Your task to perform on an android device: change timer sound Image 0: 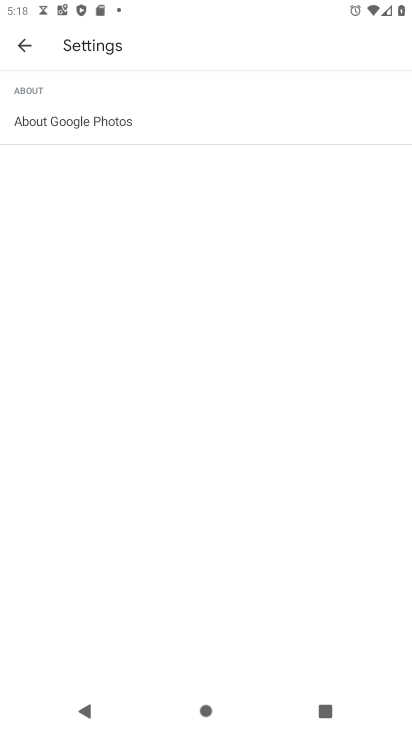
Step 0: press back button
Your task to perform on an android device: change timer sound Image 1: 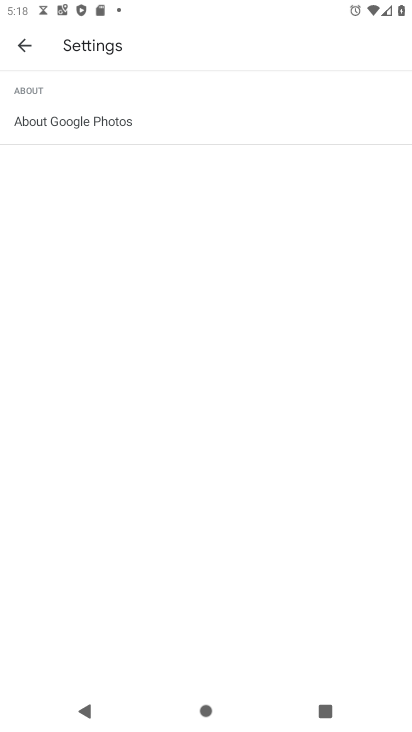
Step 1: press home button
Your task to perform on an android device: change timer sound Image 2: 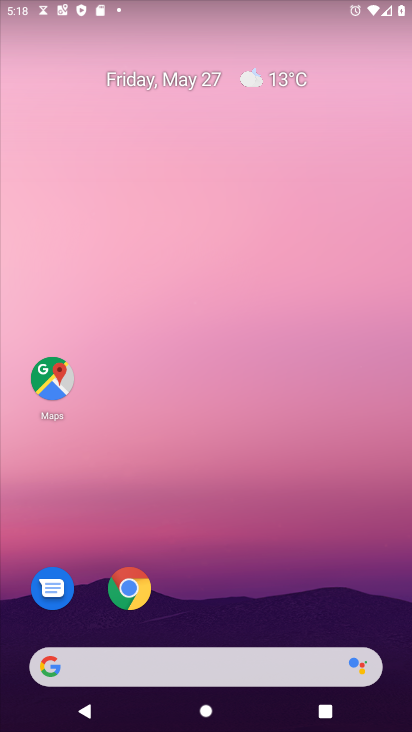
Step 2: drag from (210, 581) to (294, 39)
Your task to perform on an android device: change timer sound Image 3: 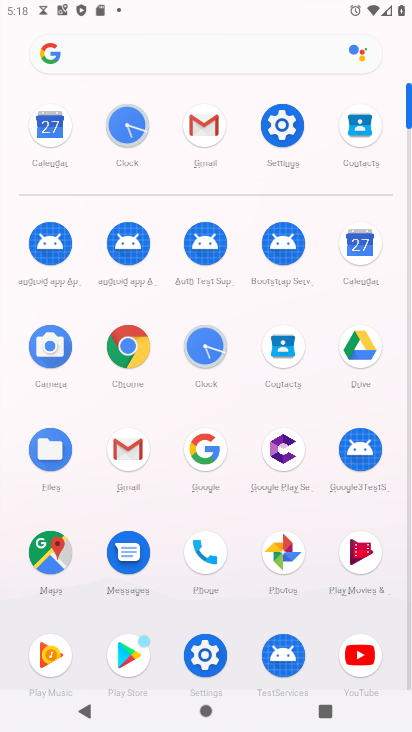
Step 3: click (214, 334)
Your task to perform on an android device: change timer sound Image 4: 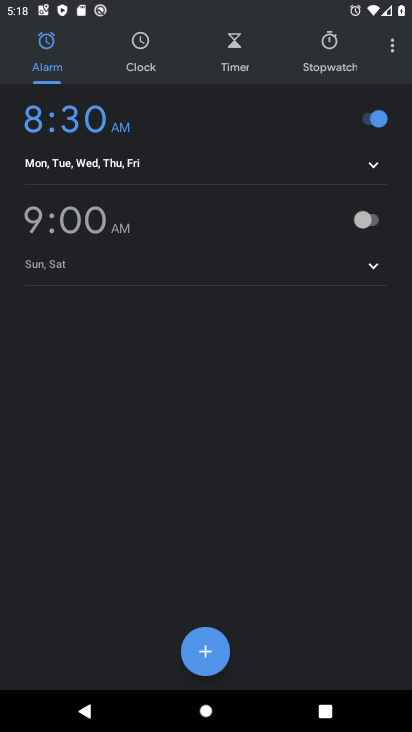
Step 4: click (393, 41)
Your task to perform on an android device: change timer sound Image 5: 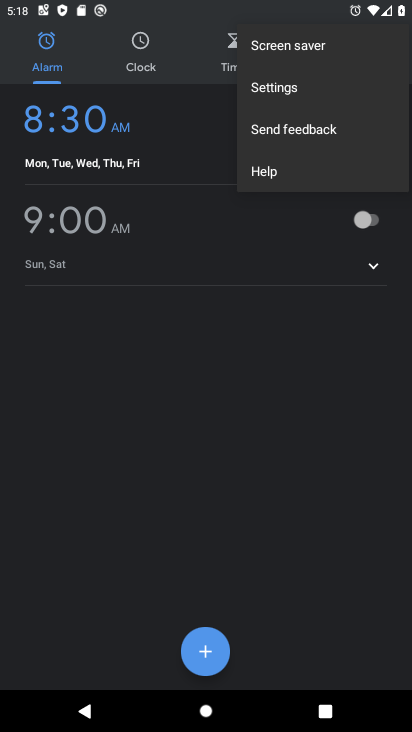
Step 5: click (308, 82)
Your task to perform on an android device: change timer sound Image 6: 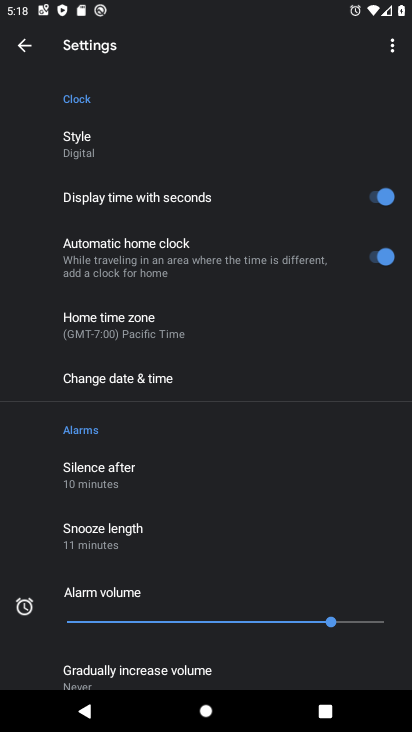
Step 6: drag from (191, 584) to (243, 164)
Your task to perform on an android device: change timer sound Image 7: 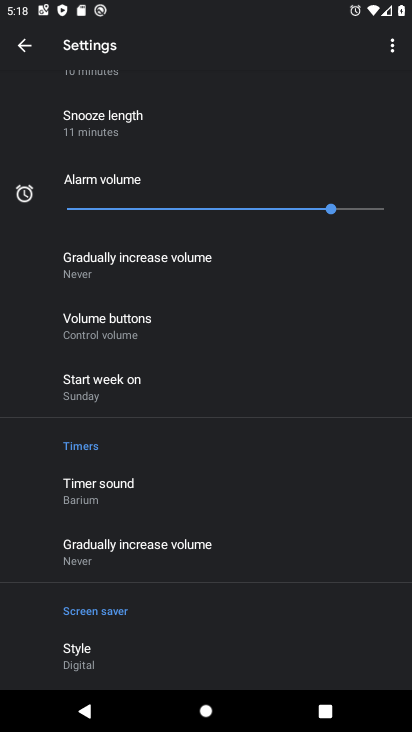
Step 7: click (97, 496)
Your task to perform on an android device: change timer sound Image 8: 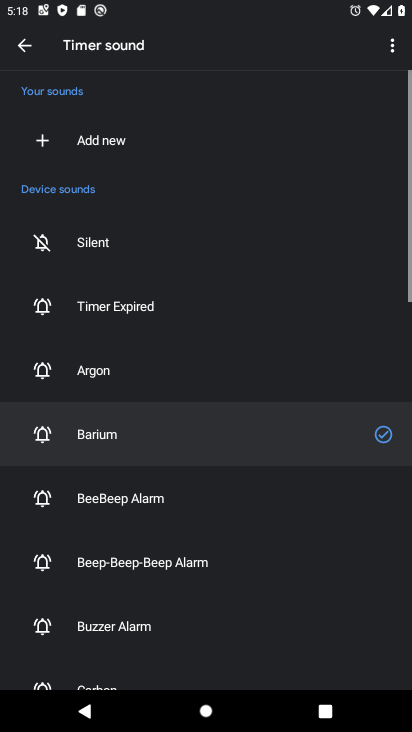
Step 8: click (110, 500)
Your task to perform on an android device: change timer sound Image 9: 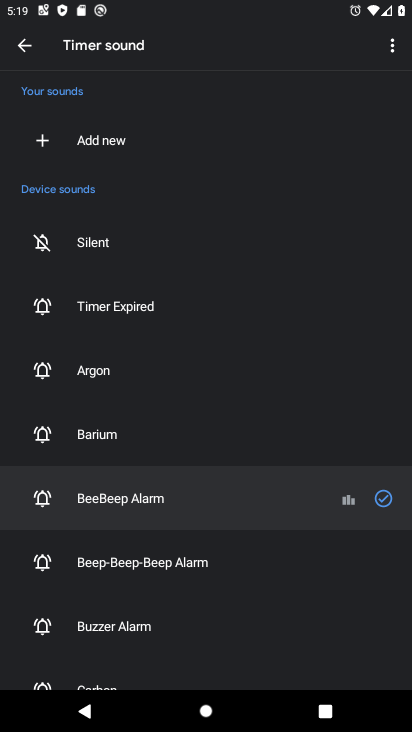
Step 9: task complete